Your task to perform on an android device: open a new tab in the chrome app Image 0: 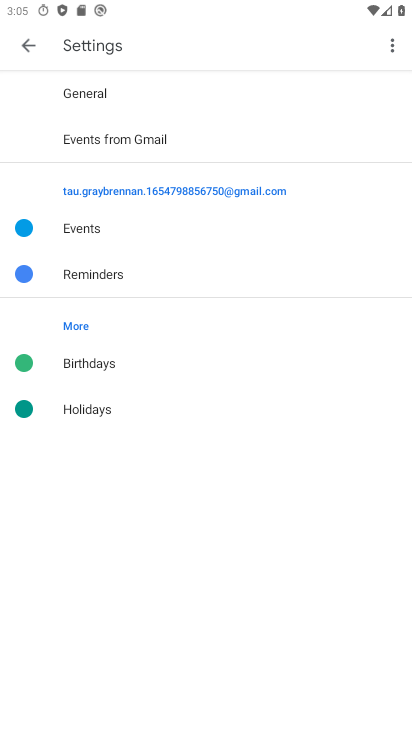
Step 0: drag from (277, 633) to (294, 69)
Your task to perform on an android device: open a new tab in the chrome app Image 1: 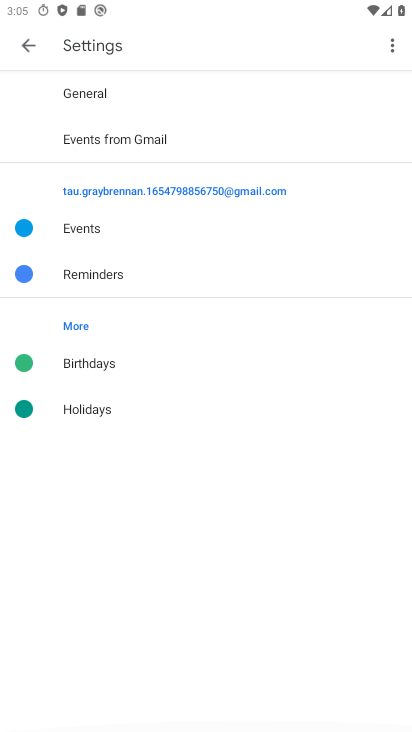
Step 1: click (33, 46)
Your task to perform on an android device: open a new tab in the chrome app Image 2: 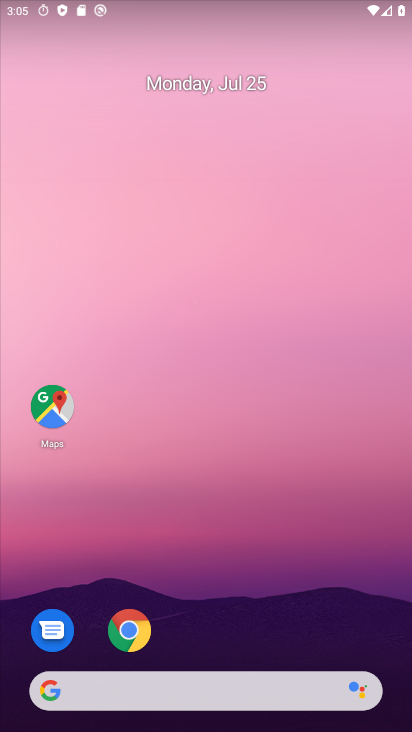
Step 2: drag from (227, 605) to (205, 243)
Your task to perform on an android device: open a new tab in the chrome app Image 3: 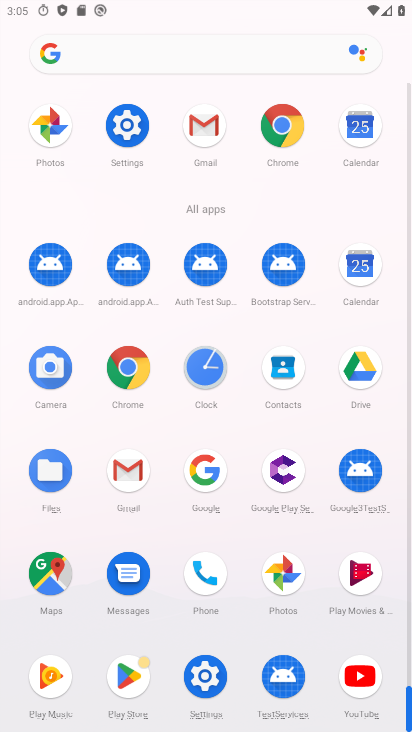
Step 3: click (279, 140)
Your task to perform on an android device: open a new tab in the chrome app Image 4: 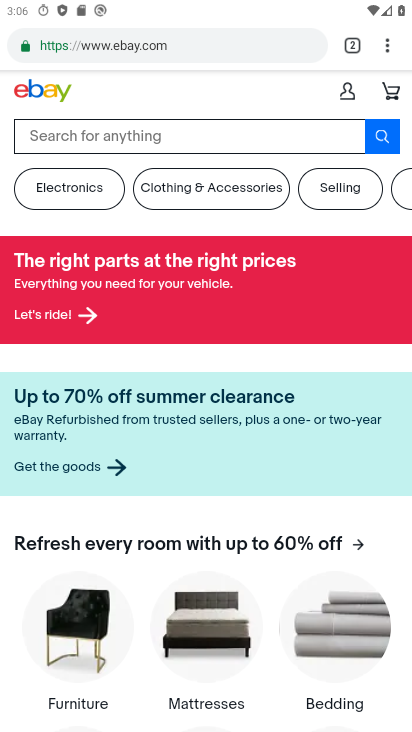
Step 4: drag from (383, 48) to (233, 93)
Your task to perform on an android device: open a new tab in the chrome app Image 5: 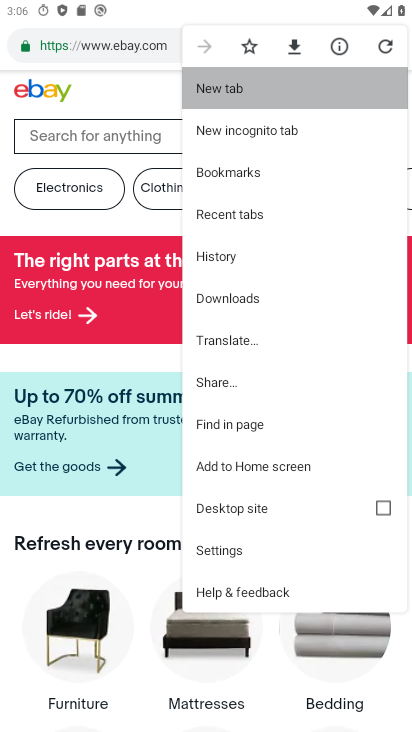
Step 5: click (228, 85)
Your task to perform on an android device: open a new tab in the chrome app Image 6: 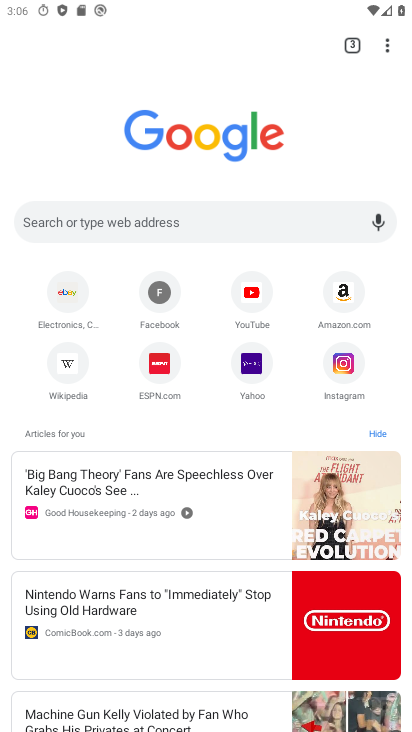
Step 6: task complete